Your task to perform on an android device: change notification settings in the gmail app Image 0: 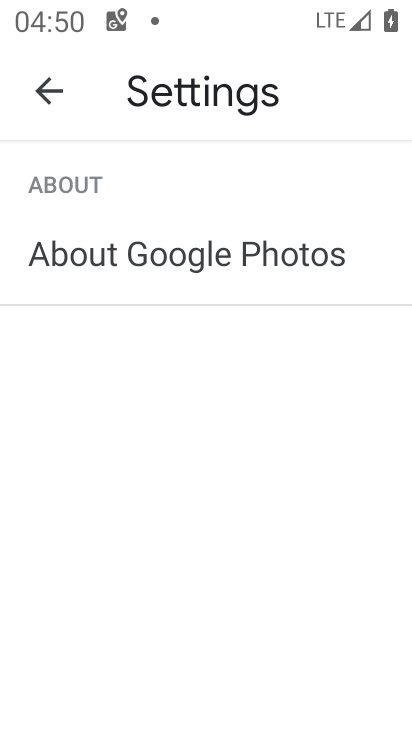
Step 0: press home button
Your task to perform on an android device: change notification settings in the gmail app Image 1: 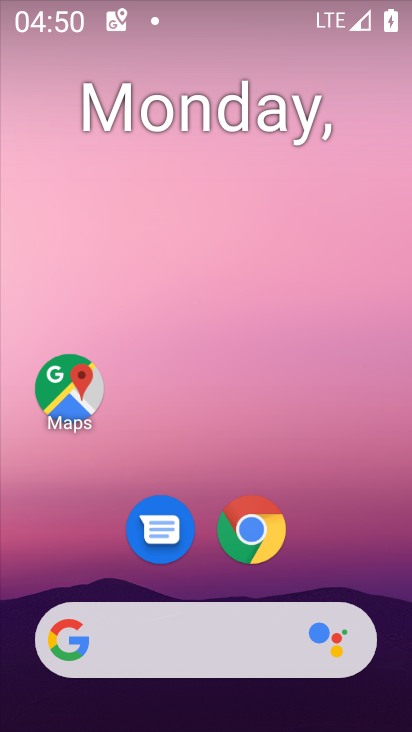
Step 1: drag from (380, 522) to (240, 59)
Your task to perform on an android device: change notification settings in the gmail app Image 2: 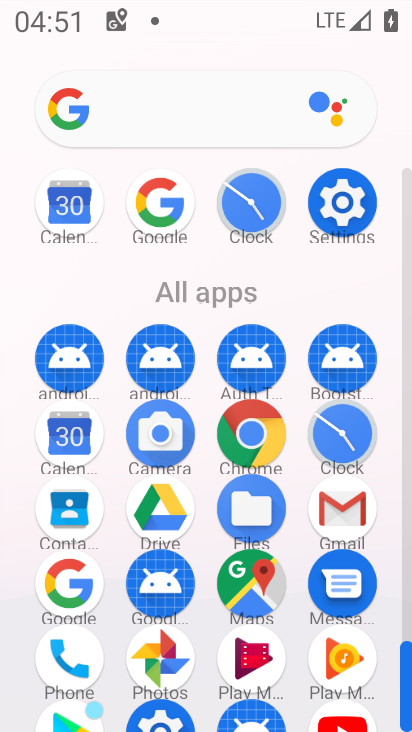
Step 2: click (356, 517)
Your task to perform on an android device: change notification settings in the gmail app Image 3: 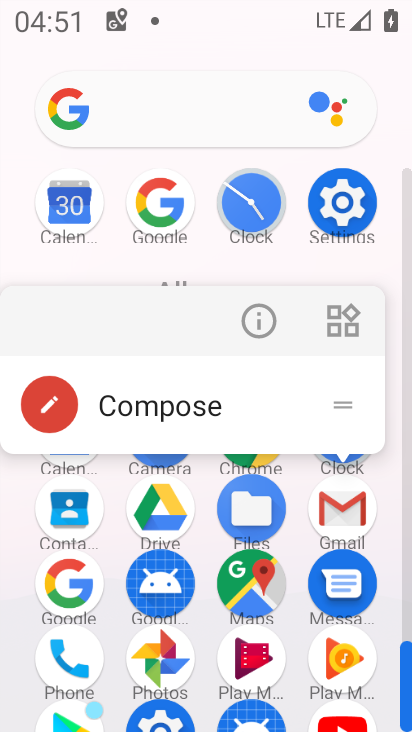
Step 3: click (356, 517)
Your task to perform on an android device: change notification settings in the gmail app Image 4: 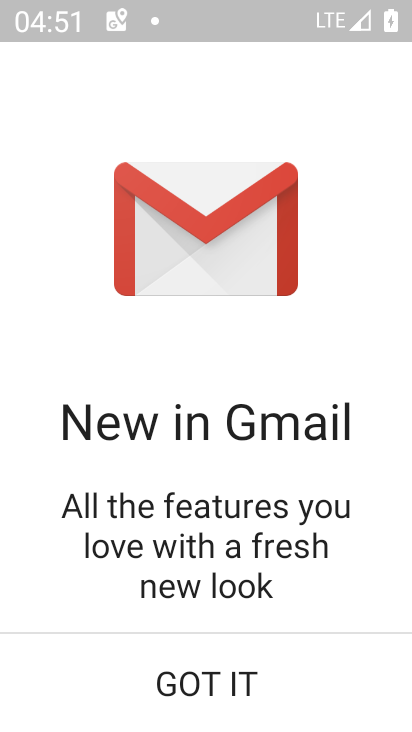
Step 4: click (197, 684)
Your task to perform on an android device: change notification settings in the gmail app Image 5: 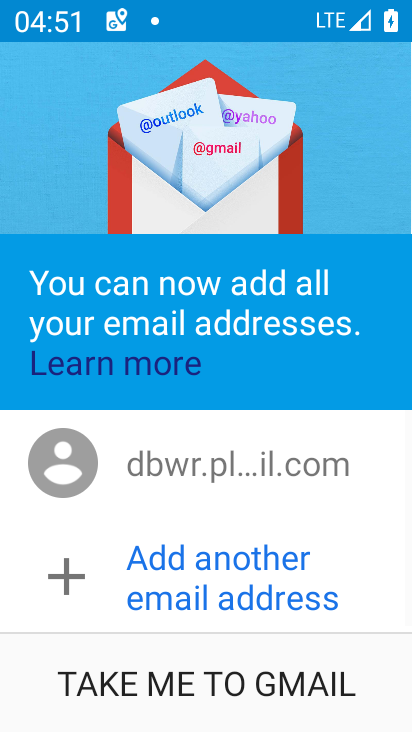
Step 5: click (197, 684)
Your task to perform on an android device: change notification settings in the gmail app Image 6: 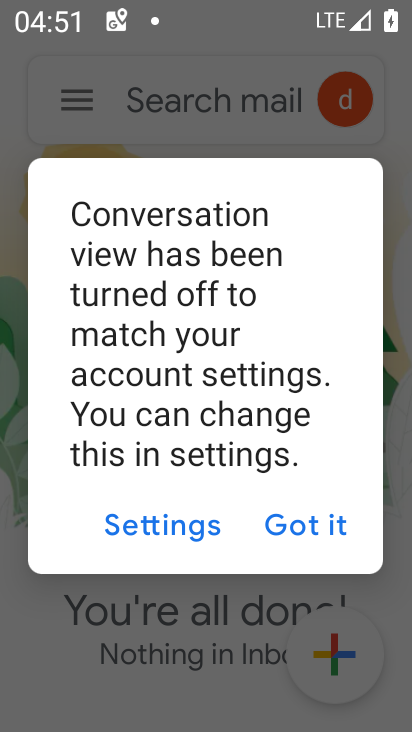
Step 6: click (334, 516)
Your task to perform on an android device: change notification settings in the gmail app Image 7: 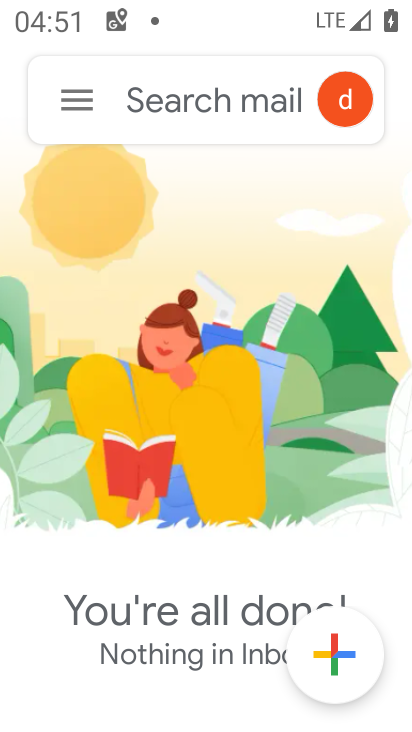
Step 7: click (75, 91)
Your task to perform on an android device: change notification settings in the gmail app Image 8: 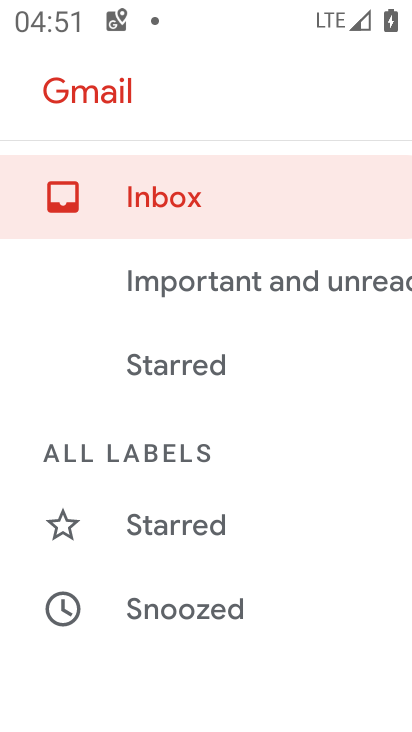
Step 8: drag from (277, 641) to (217, 142)
Your task to perform on an android device: change notification settings in the gmail app Image 9: 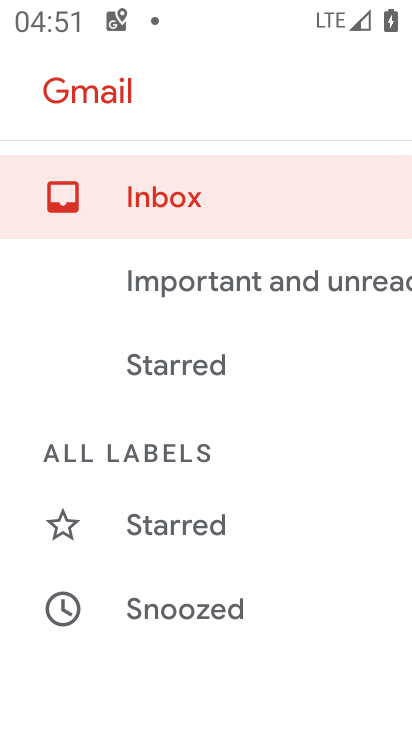
Step 9: drag from (210, 591) to (179, 27)
Your task to perform on an android device: change notification settings in the gmail app Image 10: 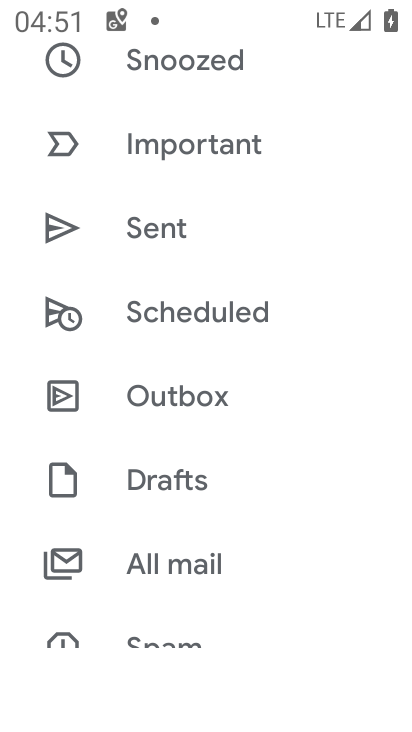
Step 10: drag from (201, 601) to (194, 94)
Your task to perform on an android device: change notification settings in the gmail app Image 11: 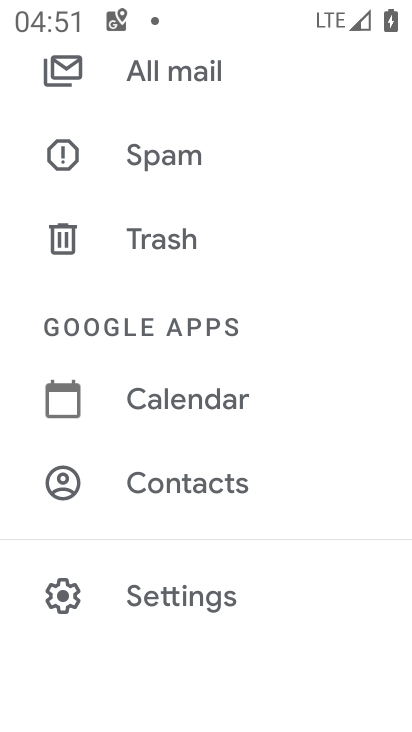
Step 11: click (207, 595)
Your task to perform on an android device: change notification settings in the gmail app Image 12: 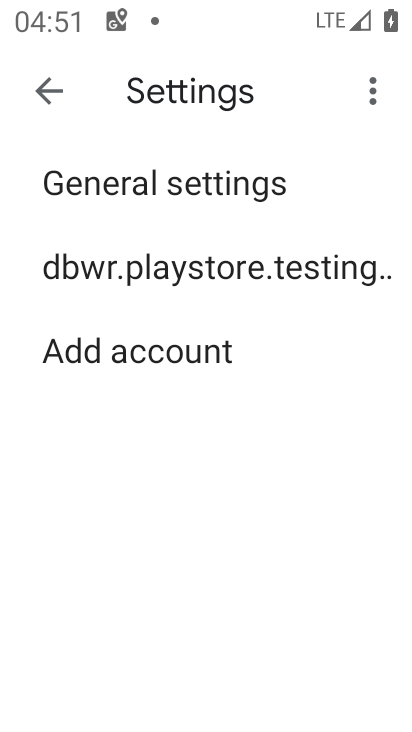
Step 12: click (263, 269)
Your task to perform on an android device: change notification settings in the gmail app Image 13: 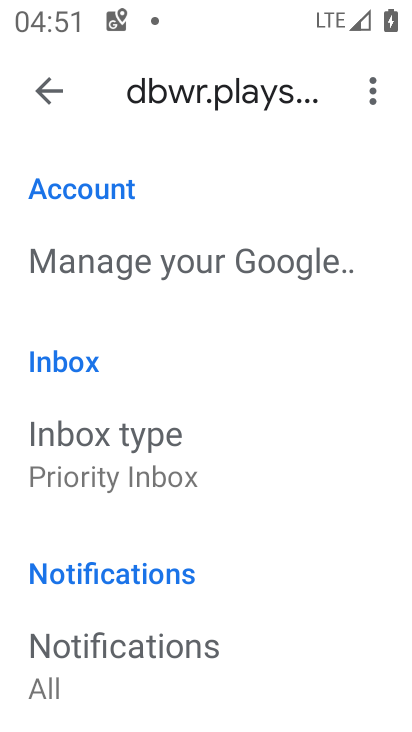
Step 13: drag from (192, 560) to (174, 67)
Your task to perform on an android device: change notification settings in the gmail app Image 14: 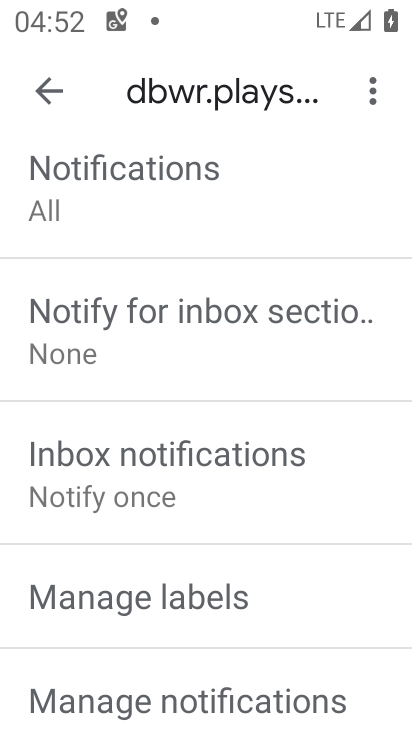
Step 14: drag from (224, 613) to (171, 214)
Your task to perform on an android device: change notification settings in the gmail app Image 15: 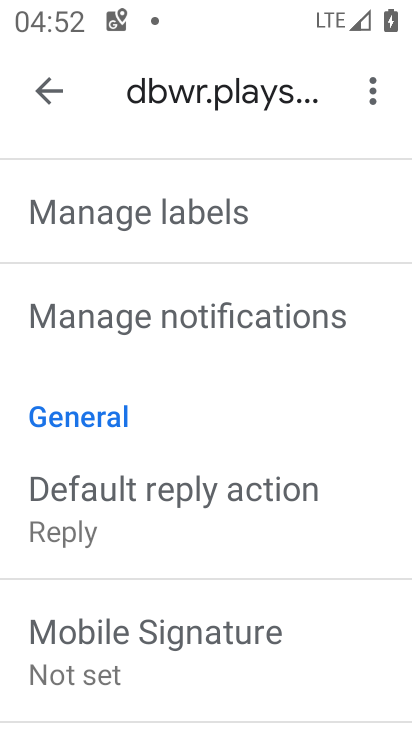
Step 15: click (199, 313)
Your task to perform on an android device: change notification settings in the gmail app Image 16: 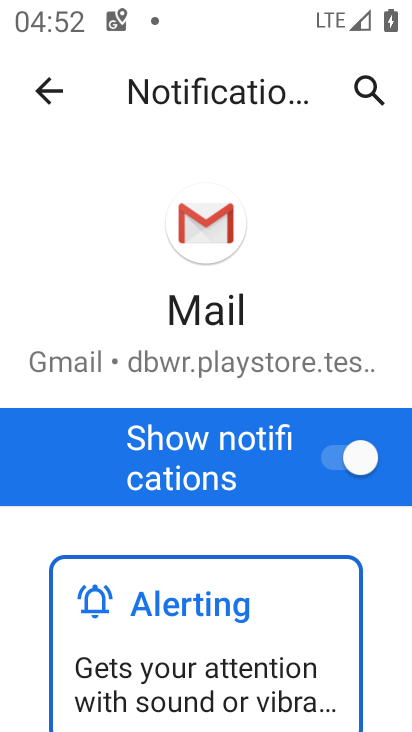
Step 16: drag from (341, 540) to (255, 103)
Your task to perform on an android device: change notification settings in the gmail app Image 17: 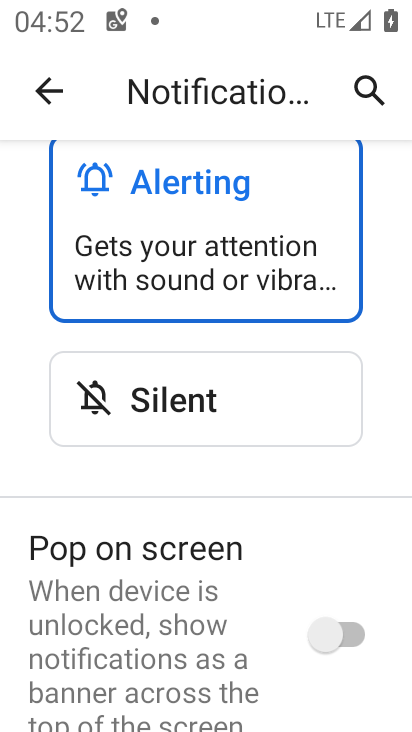
Step 17: click (323, 419)
Your task to perform on an android device: change notification settings in the gmail app Image 18: 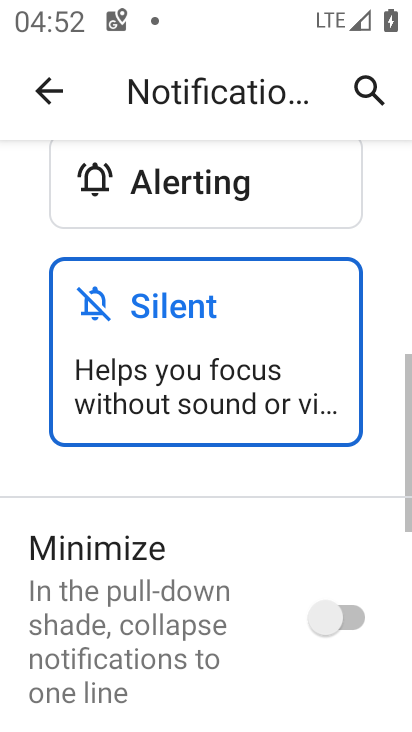
Step 18: click (351, 629)
Your task to perform on an android device: change notification settings in the gmail app Image 19: 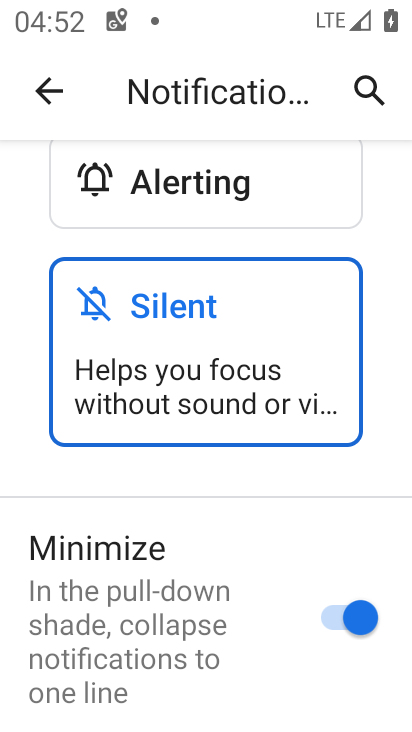
Step 19: task complete